Your task to perform on an android device: find which apps use the phone's location Image 0: 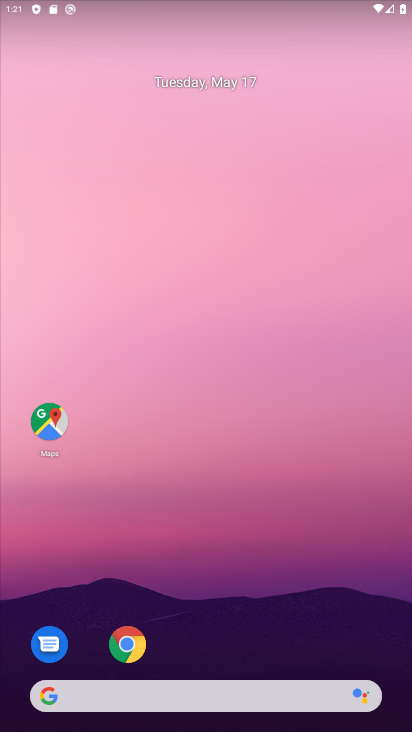
Step 0: drag from (201, 687) to (308, 96)
Your task to perform on an android device: find which apps use the phone's location Image 1: 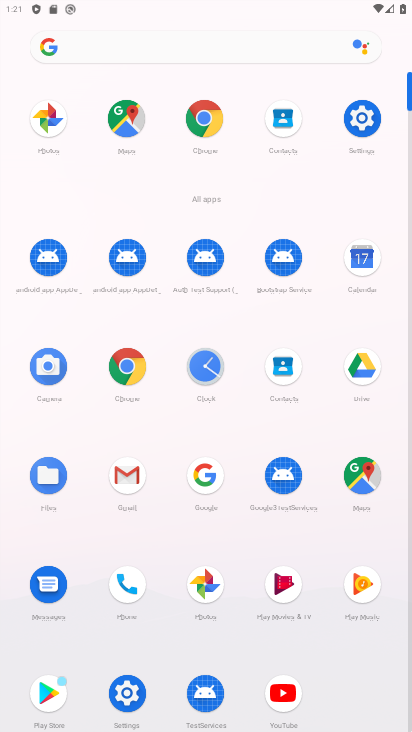
Step 1: click (365, 140)
Your task to perform on an android device: find which apps use the phone's location Image 2: 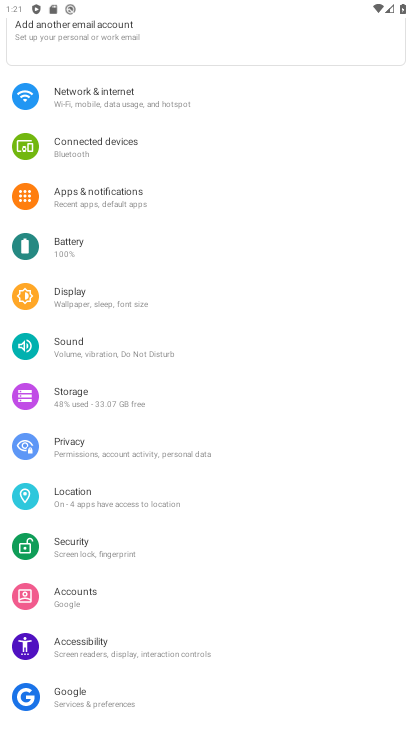
Step 2: click (98, 507)
Your task to perform on an android device: find which apps use the phone's location Image 3: 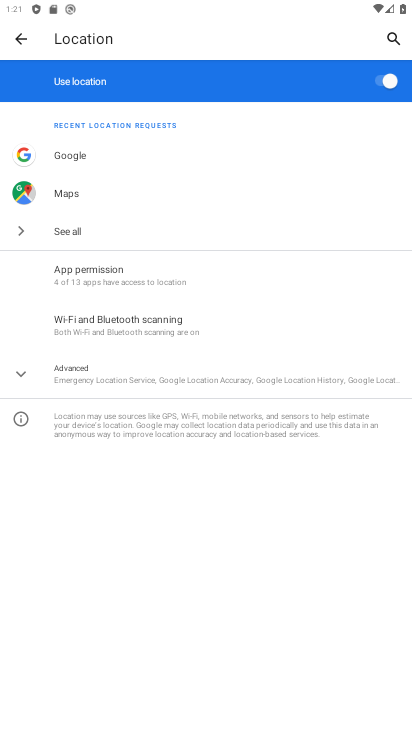
Step 3: click (87, 283)
Your task to perform on an android device: find which apps use the phone's location Image 4: 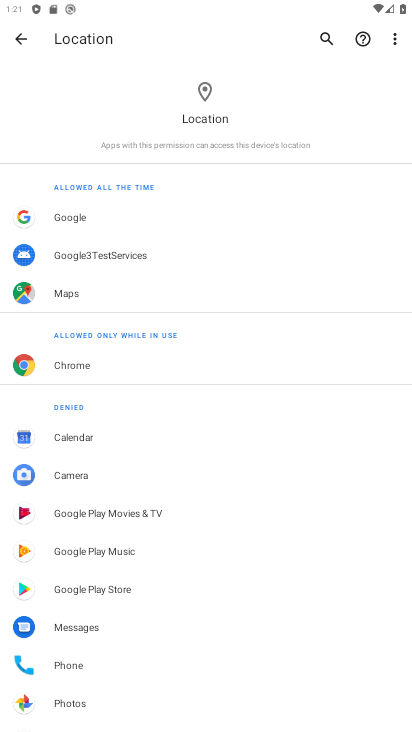
Step 4: task complete